Your task to perform on an android device: Search for sushi restaurants on Maps Image 0: 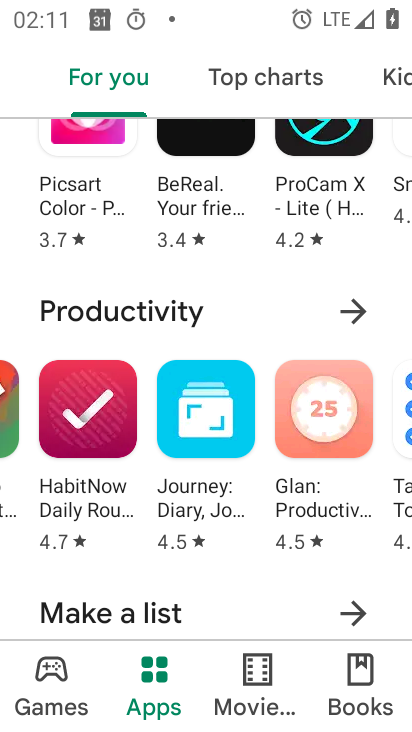
Step 0: press home button
Your task to perform on an android device: Search for sushi restaurants on Maps Image 1: 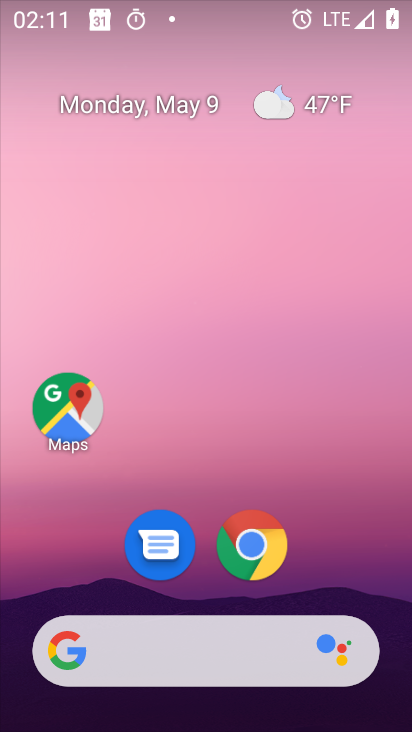
Step 1: drag from (327, 624) to (341, 26)
Your task to perform on an android device: Search for sushi restaurants on Maps Image 2: 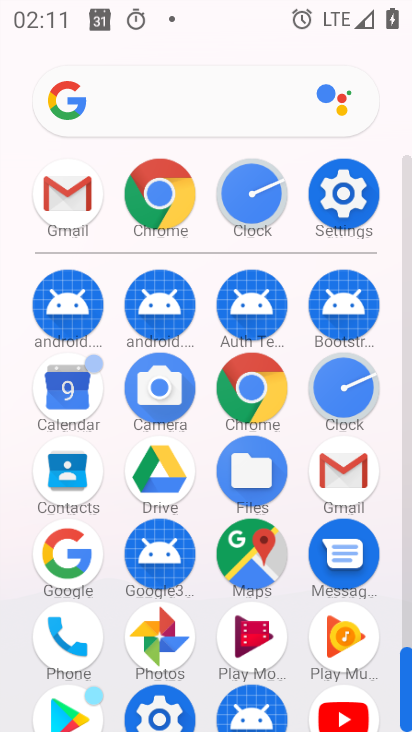
Step 2: click (269, 565)
Your task to perform on an android device: Search for sushi restaurants on Maps Image 3: 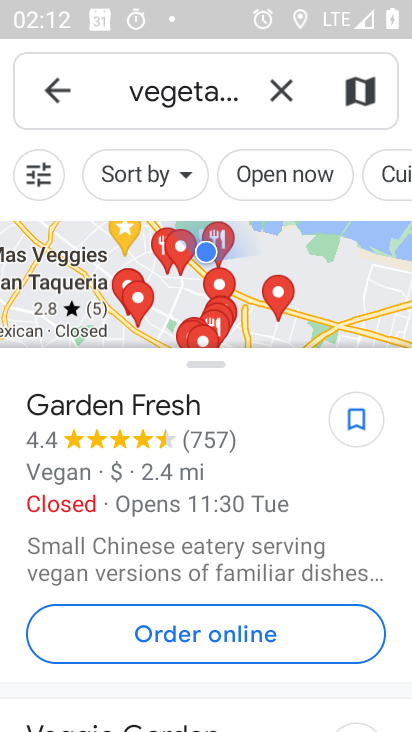
Step 3: click (284, 91)
Your task to perform on an android device: Search for sushi restaurants on Maps Image 4: 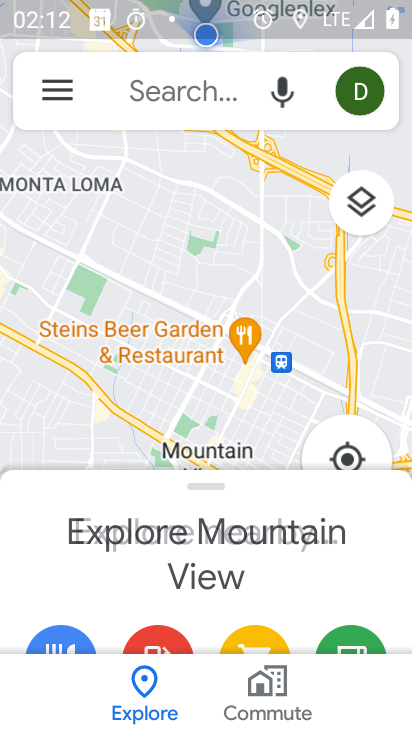
Step 4: click (213, 101)
Your task to perform on an android device: Search for sushi restaurants on Maps Image 5: 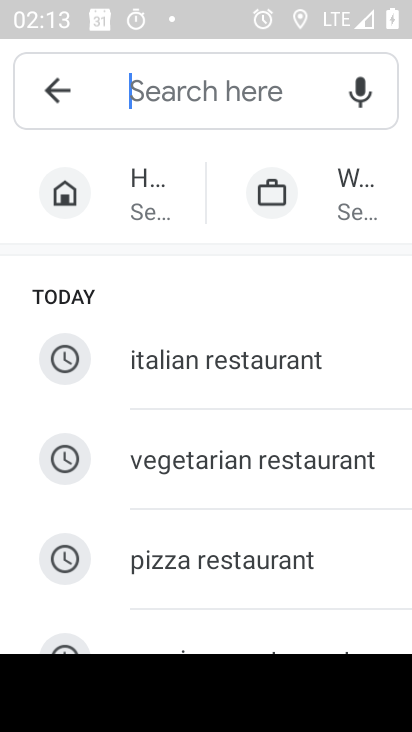
Step 5: type "sushi rest"
Your task to perform on an android device: Search for sushi restaurants on Maps Image 6: 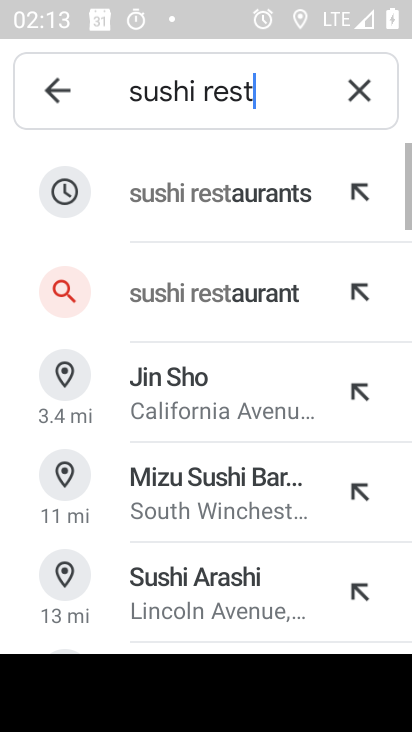
Step 6: click (272, 210)
Your task to perform on an android device: Search for sushi restaurants on Maps Image 7: 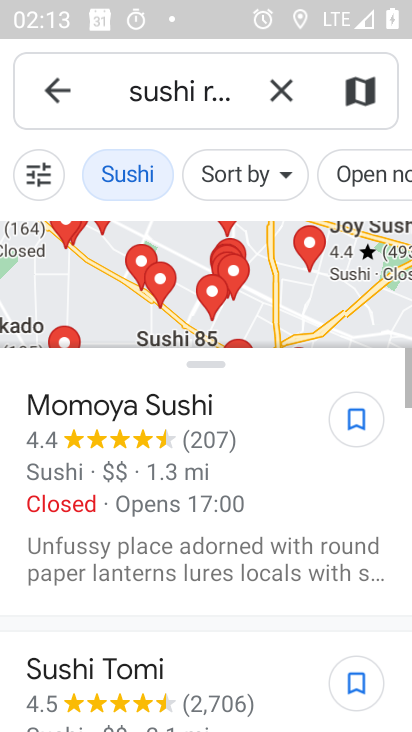
Step 7: task complete